Your task to perform on an android device: see creations saved in the google photos Image 0: 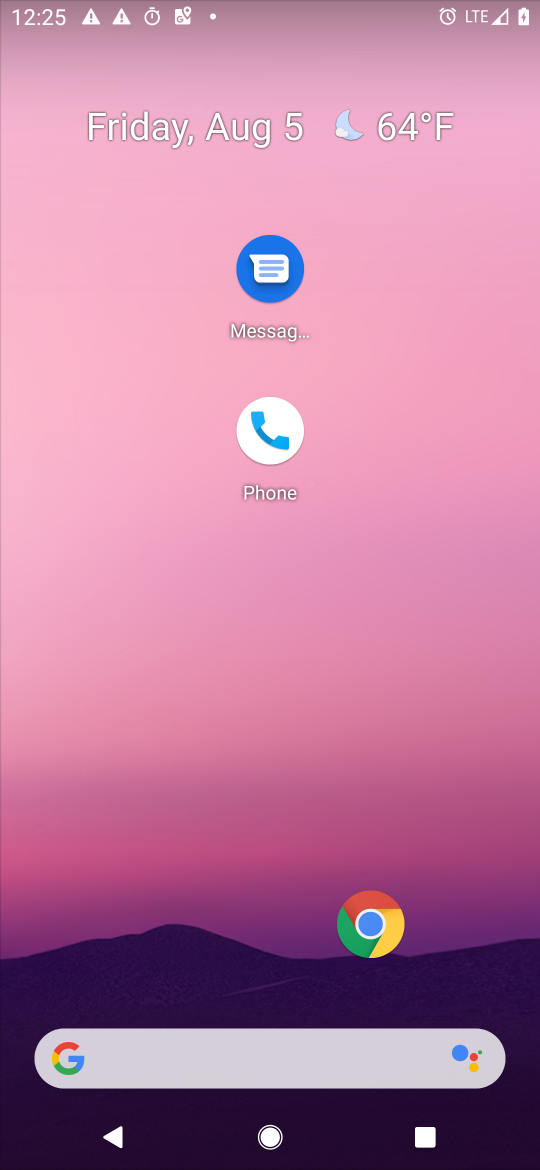
Step 0: drag from (280, 776) to (317, 86)
Your task to perform on an android device: see creations saved in the google photos Image 1: 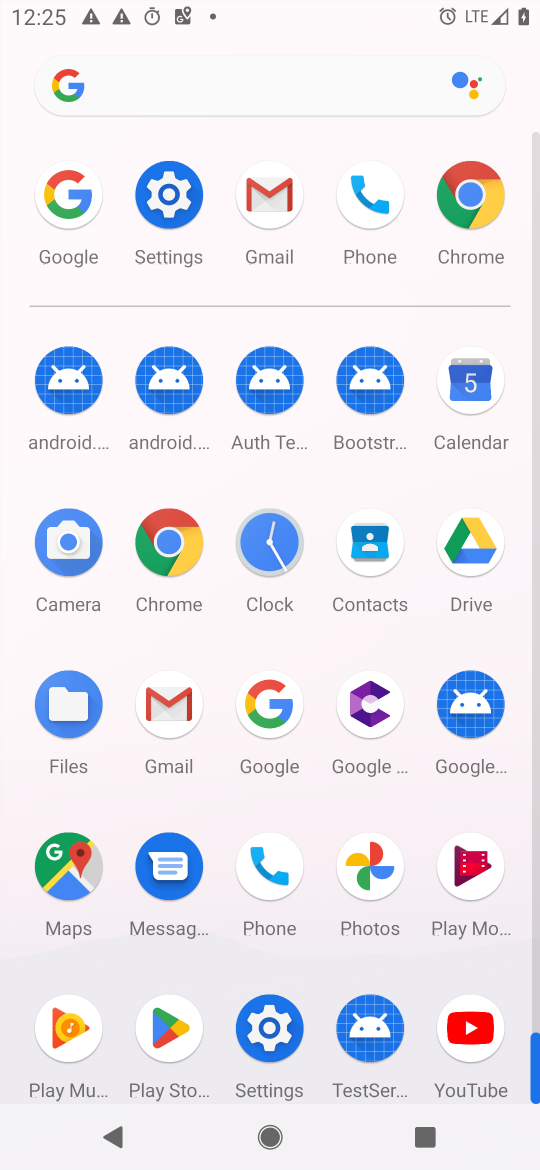
Step 1: click (377, 863)
Your task to perform on an android device: see creations saved in the google photos Image 2: 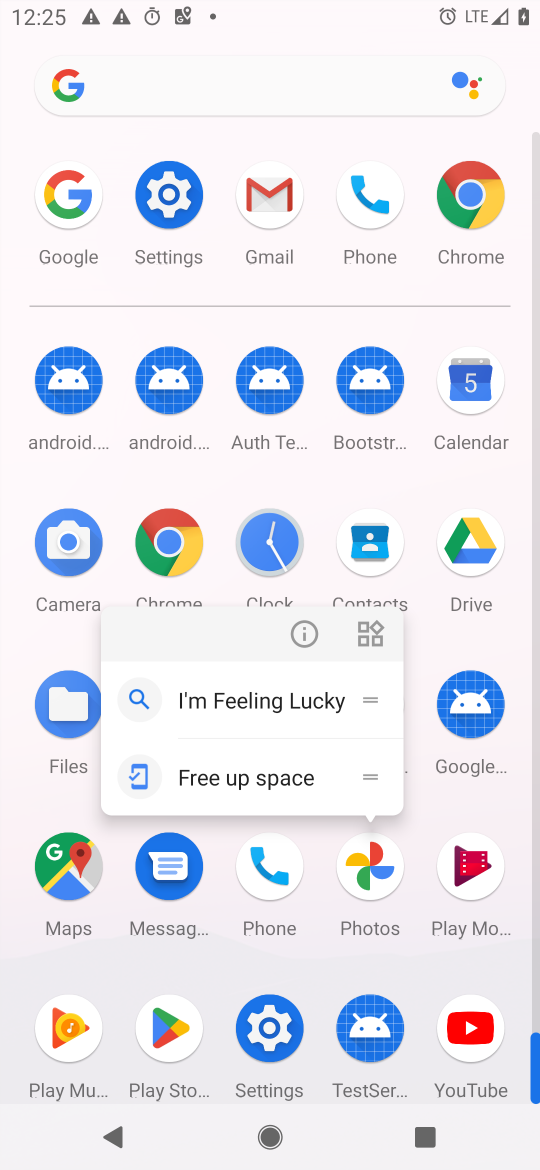
Step 2: click (308, 634)
Your task to perform on an android device: see creations saved in the google photos Image 3: 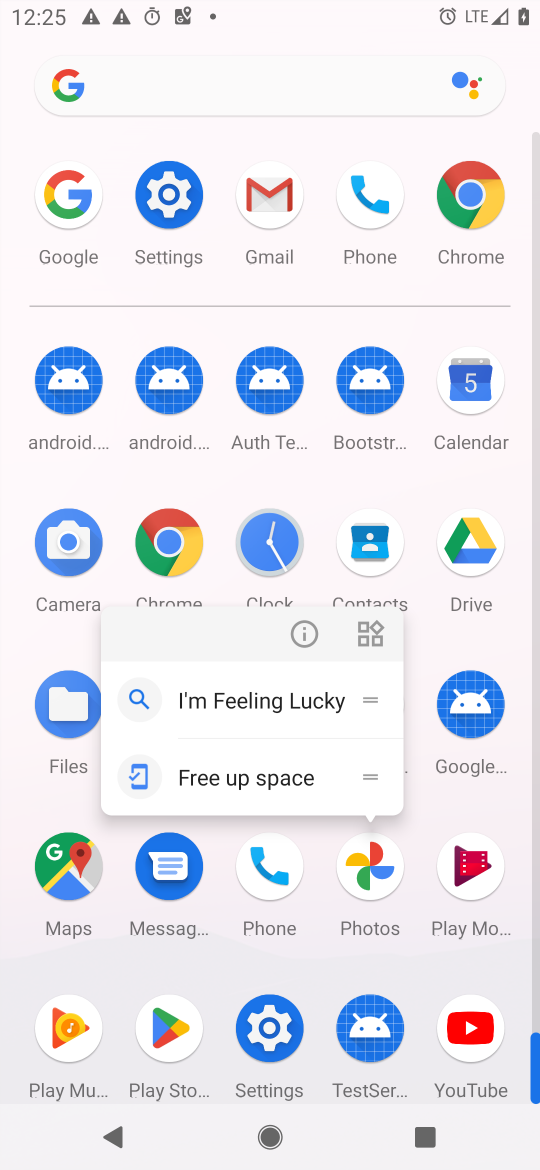
Step 3: click (308, 634)
Your task to perform on an android device: see creations saved in the google photos Image 4: 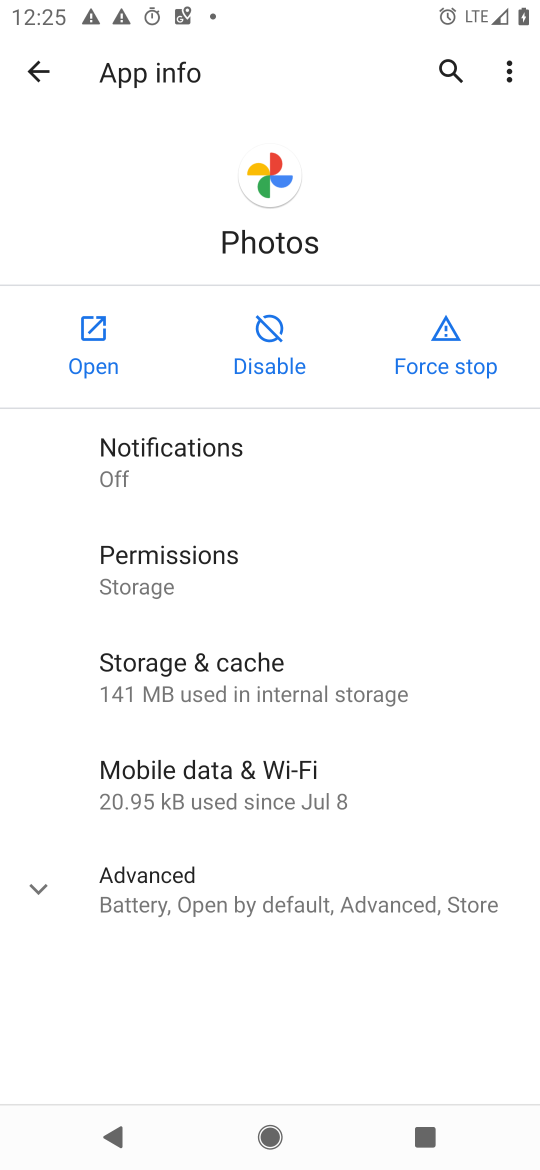
Step 4: click (98, 338)
Your task to perform on an android device: see creations saved in the google photos Image 5: 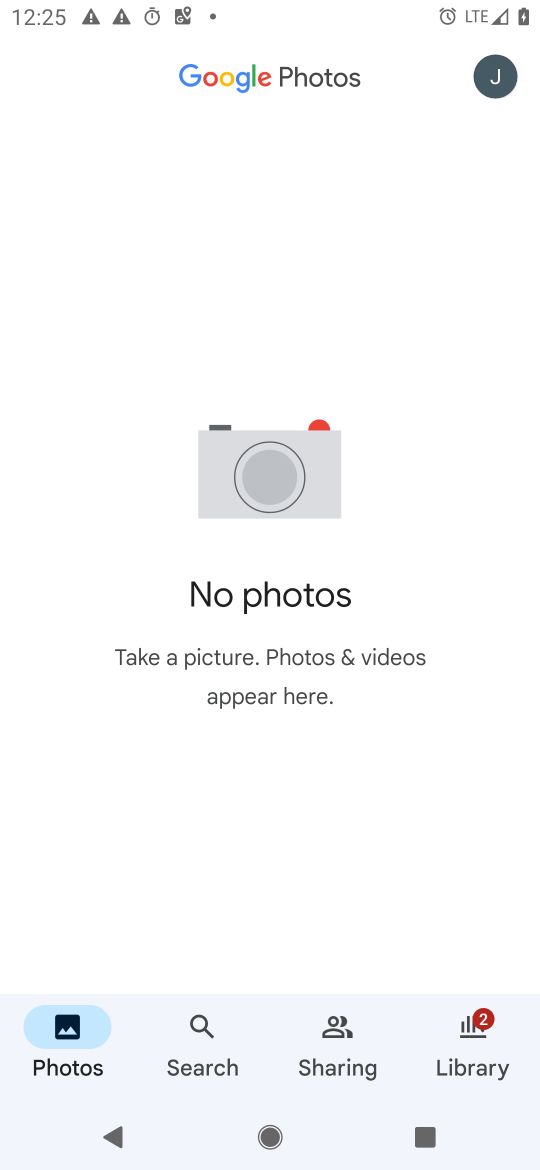
Step 5: drag from (218, 798) to (404, 412)
Your task to perform on an android device: see creations saved in the google photos Image 6: 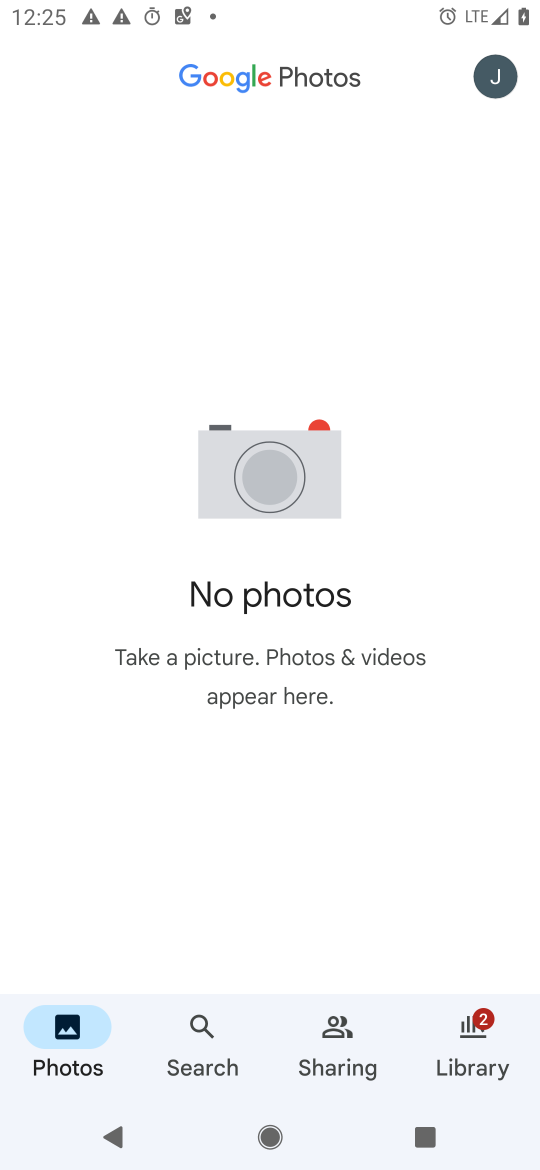
Step 6: click (518, 767)
Your task to perform on an android device: see creations saved in the google photos Image 7: 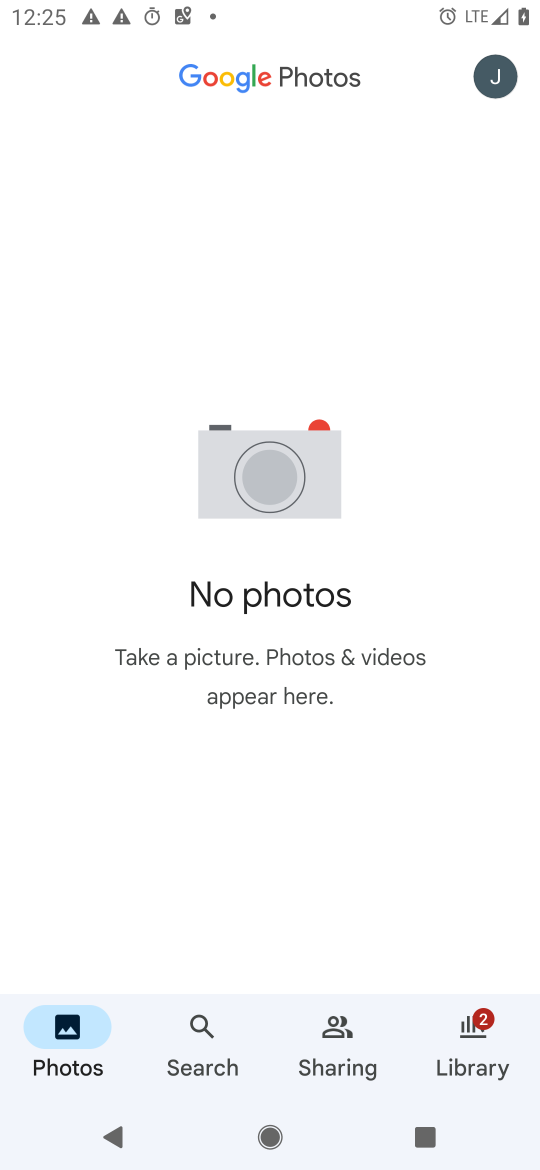
Step 7: click (211, 1031)
Your task to perform on an android device: see creations saved in the google photos Image 8: 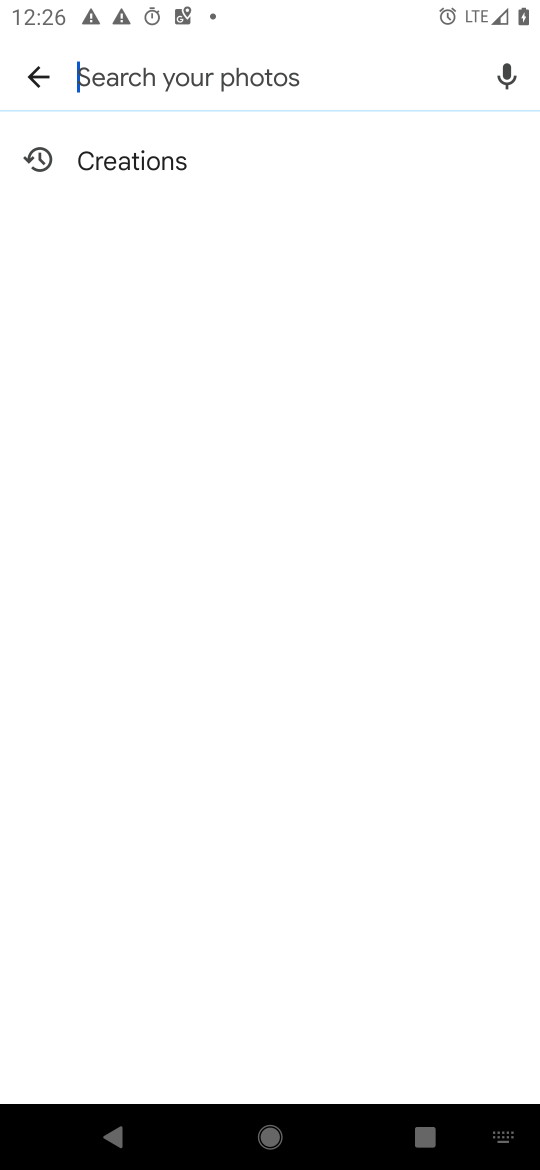
Step 8: click (108, 171)
Your task to perform on an android device: see creations saved in the google photos Image 9: 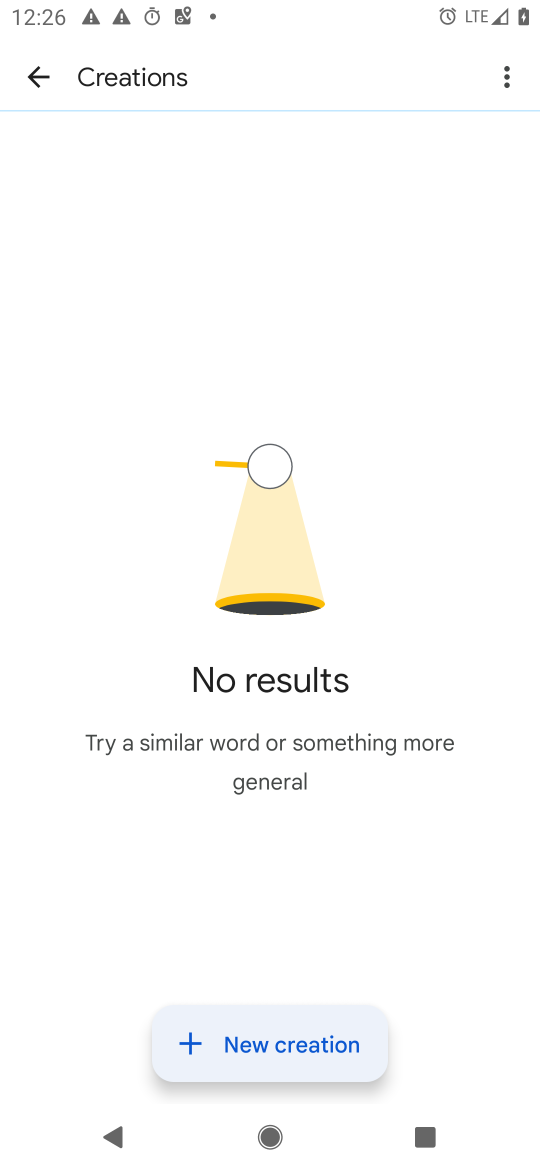
Step 9: task complete